Your task to perform on an android device: show emergency info Image 0: 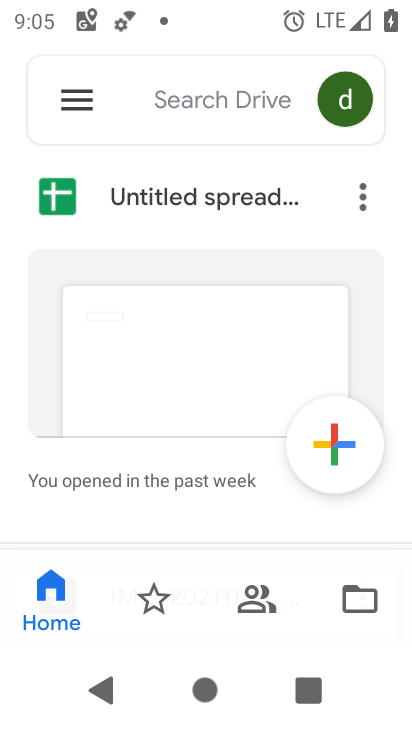
Step 0: press home button
Your task to perform on an android device: show emergency info Image 1: 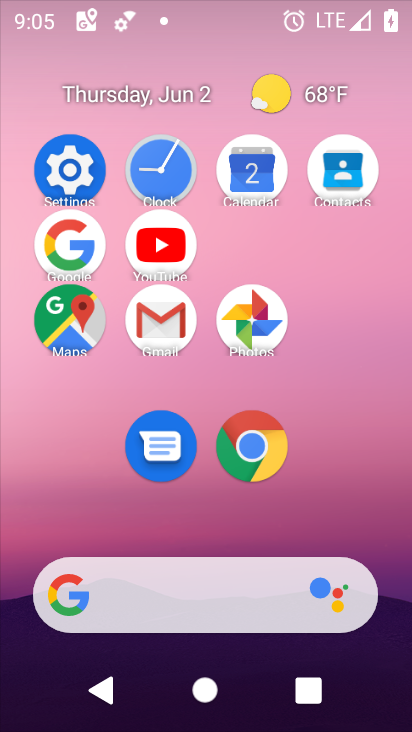
Step 1: click (65, 161)
Your task to perform on an android device: show emergency info Image 2: 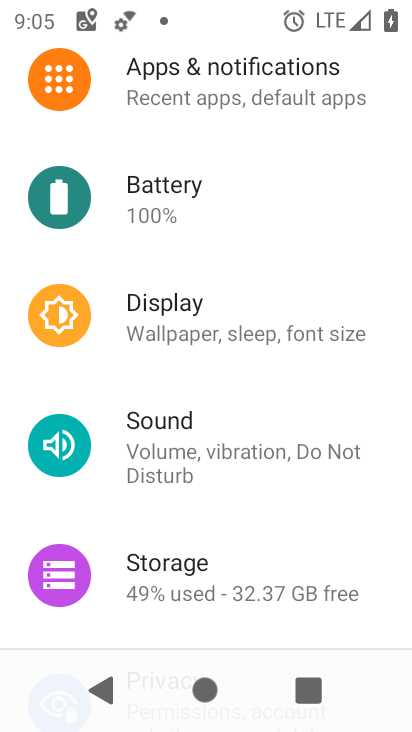
Step 2: drag from (257, 579) to (256, 146)
Your task to perform on an android device: show emergency info Image 3: 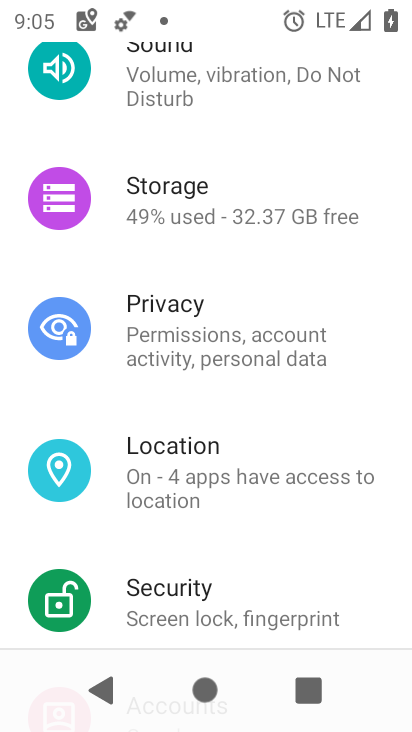
Step 3: drag from (314, 543) to (265, 222)
Your task to perform on an android device: show emergency info Image 4: 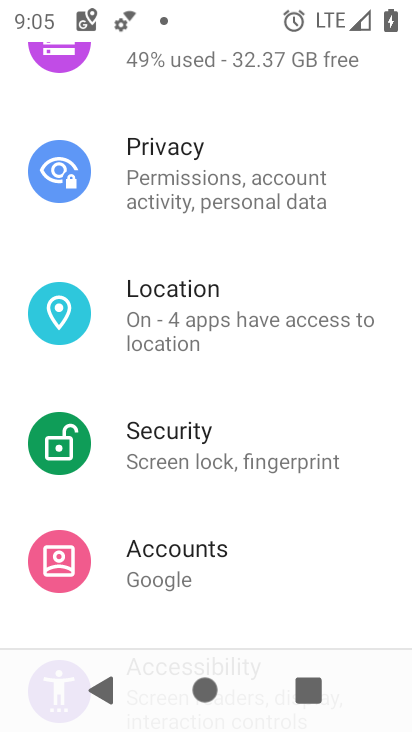
Step 4: drag from (320, 586) to (317, 134)
Your task to perform on an android device: show emergency info Image 5: 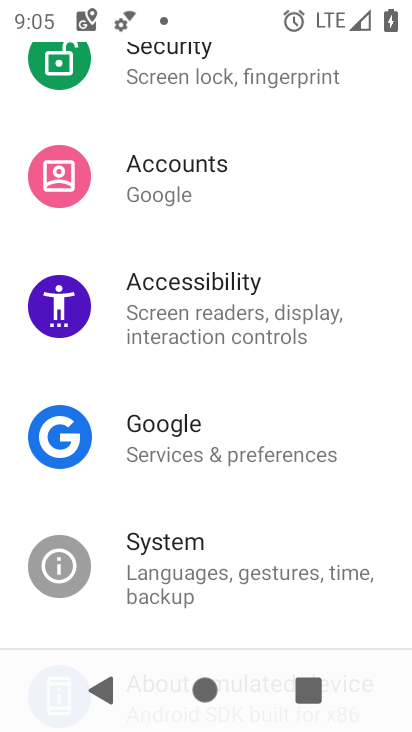
Step 5: drag from (294, 589) to (256, 235)
Your task to perform on an android device: show emergency info Image 6: 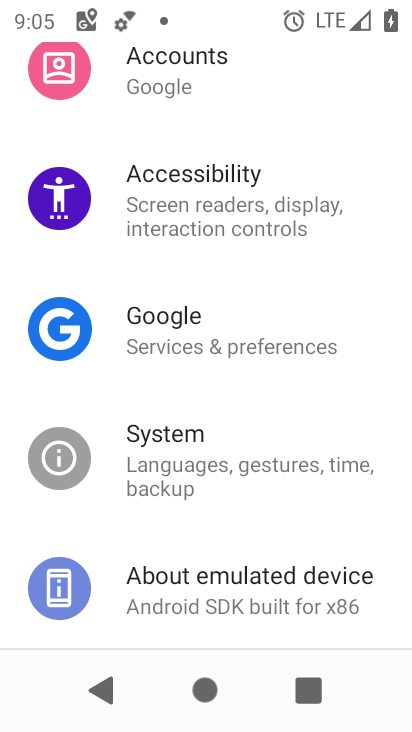
Step 6: click (304, 578)
Your task to perform on an android device: show emergency info Image 7: 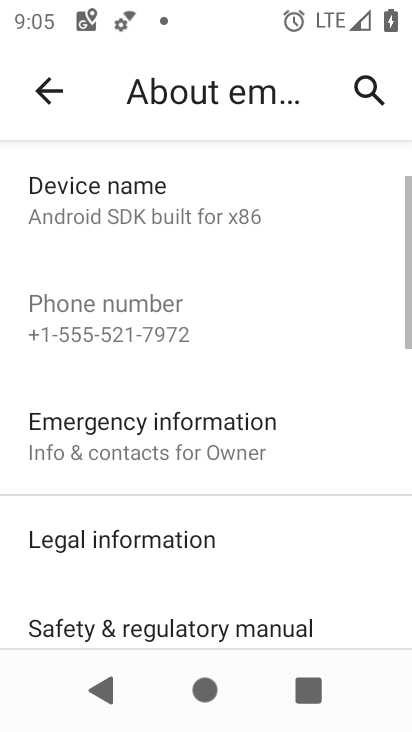
Step 7: drag from (304, 578) to (262, 251)
Your task to perform on an android device: show emergency info Image 8: 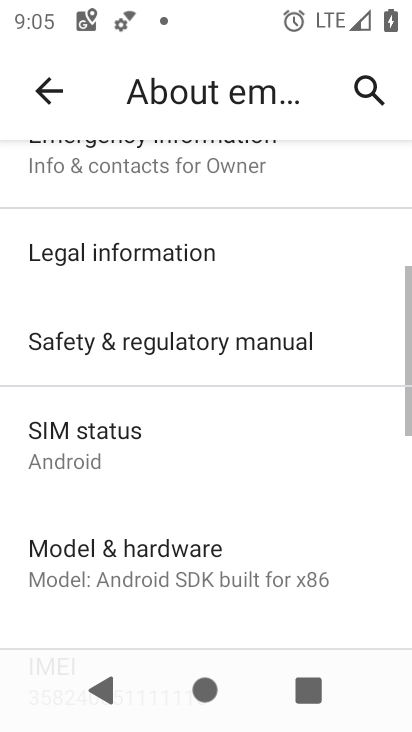
Step 8: drag from (321, 588) to (296, 263)
Your task to perform on an android device: show emergency info Image 9: 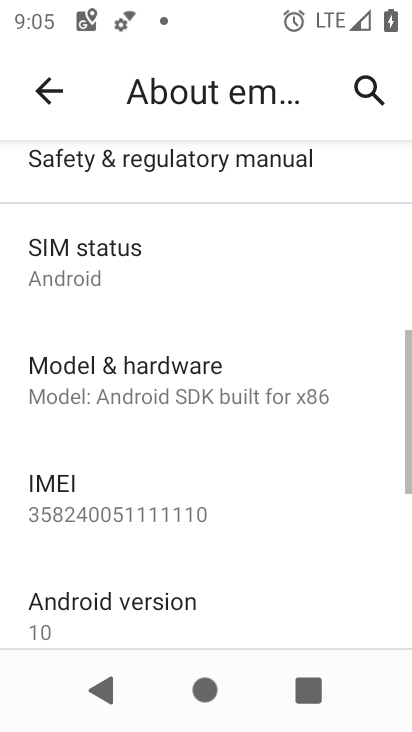
Step 9: drag from (229, 207) to (262, 608)
Your task to perform on an android device: show emergency info Image 10: 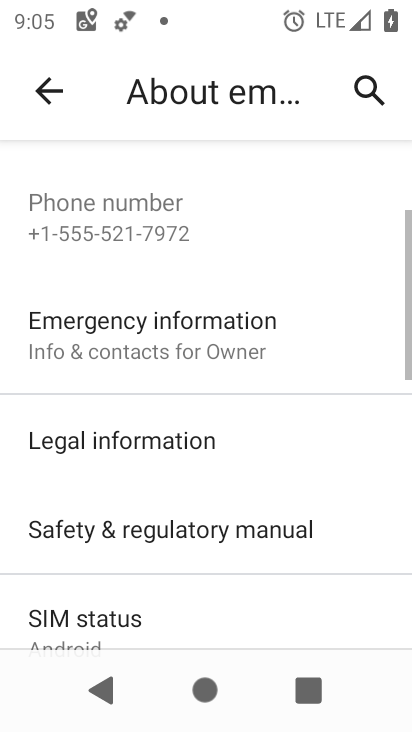
Step 10: drag from (239, 242) to (265, 549)
Your task to perform on an android device: show emergency info Image 11: 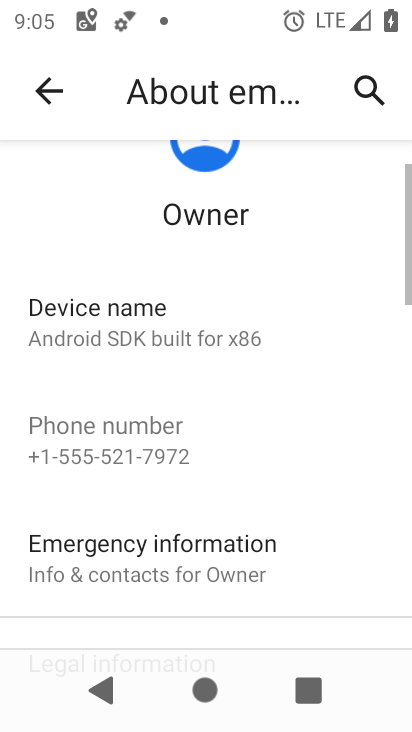
Step 11: drag from (238, 493) to (209, 230)
Your task to perform on an android device: show emergency info Image 12: 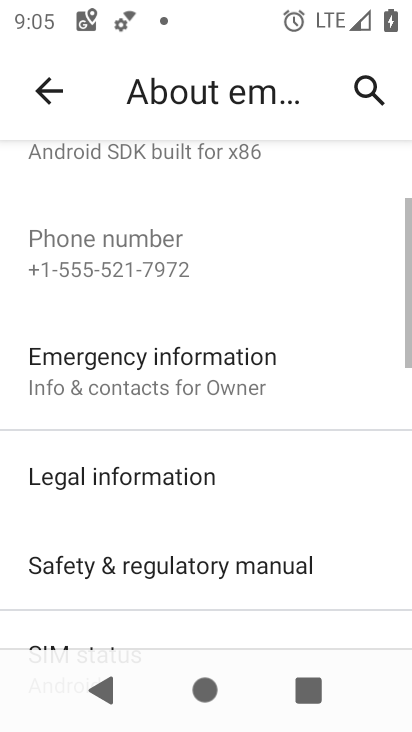
Step 12: click (246, 383)
Your task to perform on an android device: show emergency info Image 13: 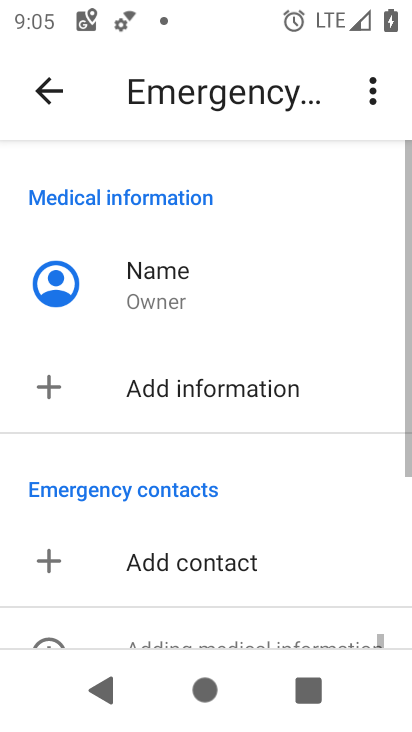
Step 13: task complete